Your task to perform on an android device: Open Youtube and go to "Your channel" Image 0: 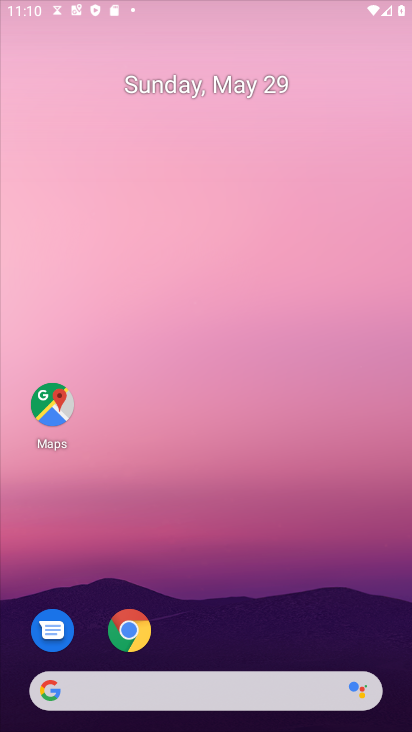
Step 0: drag from (299, 581) to (381, 61)
Your task to perform on an android device: Open Youtube and go to "Your channel" Image 1: 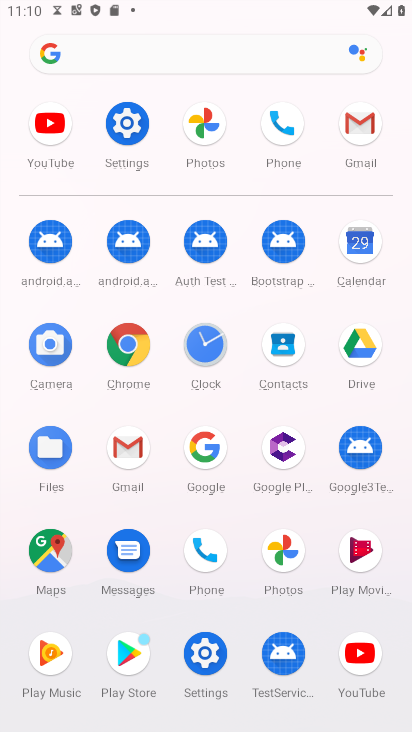
Step 1: click (35, 128)
Your task to perform on an android device: Open Youtube and go to "Your channel" Image 2: 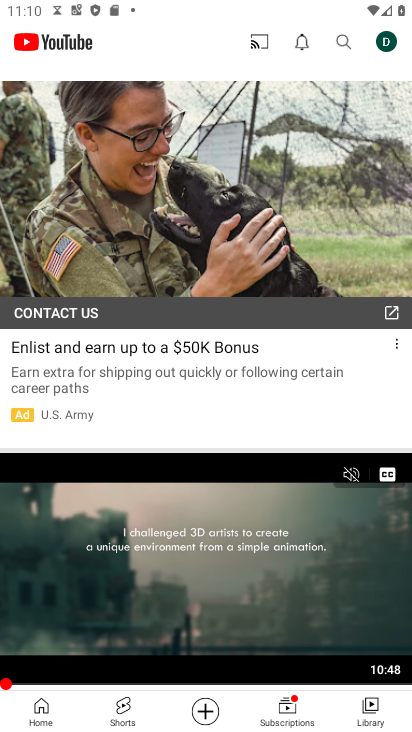
Step 2: click (391, 57)
Your task to perform on an android device: Open Youtube and go to "Your channel" Image 3: 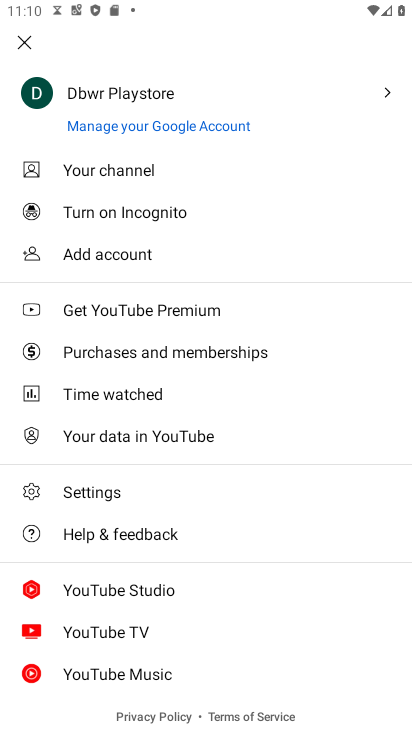
Step 3: click (76, 161)
Your task to perform on an android device: Open Youtube and go to "Your channel" Image 4: 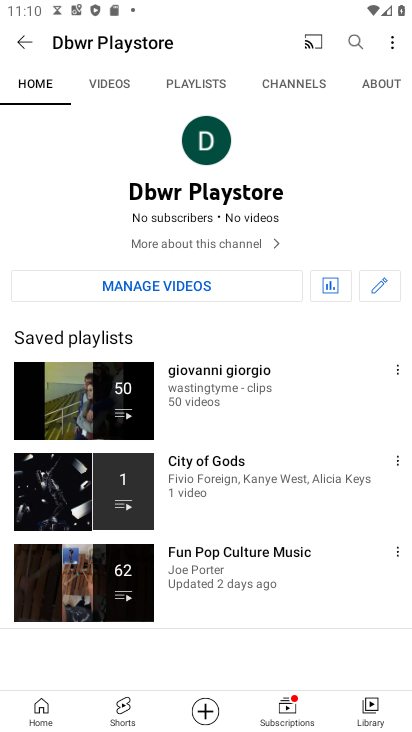
Step 4: task complete